Your task to perform on an android device: turn pop-ups off in chrome Image 0: 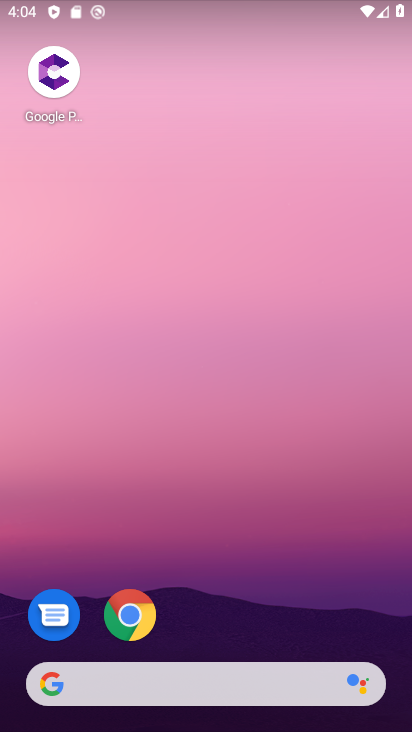
Step 0: click (130, 618)
Your task to perform on an android device: turn pop-ups off in chrome Image 1: 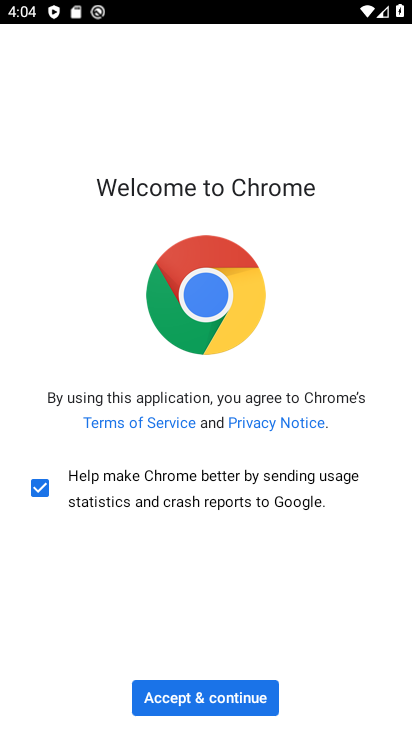
Step 1: click (230, 699)
Your task to perform on an android device: turn pop-ups off in chrome Image 2: 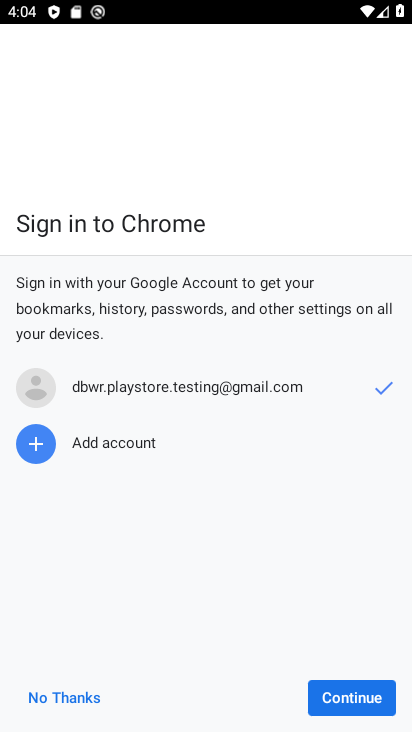
Step 2: click (345, 703)
Your task to perform on an android device: turn pop-ups off in chrome Image 3: 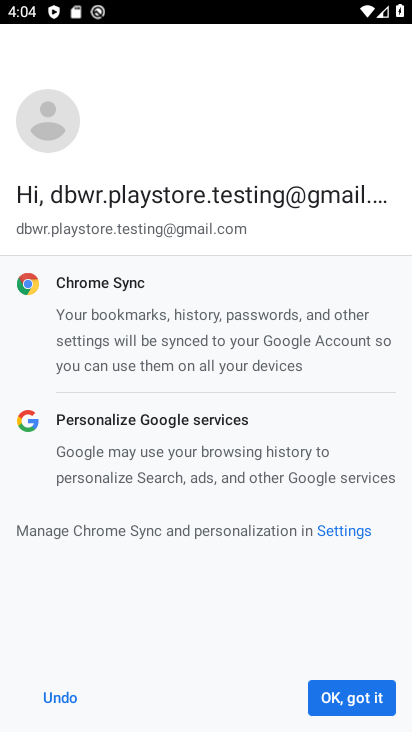
Step 3: click (338, 700)
Your task to perform on an android device: turn pop-ups off in chrome Image 4: 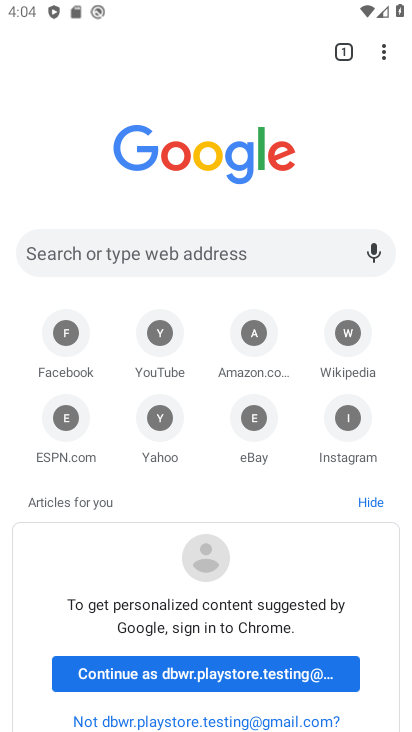
Step 4: click (379, 52)
Your task to perform on an android device: turn pop-ups off in chrome Image 5: 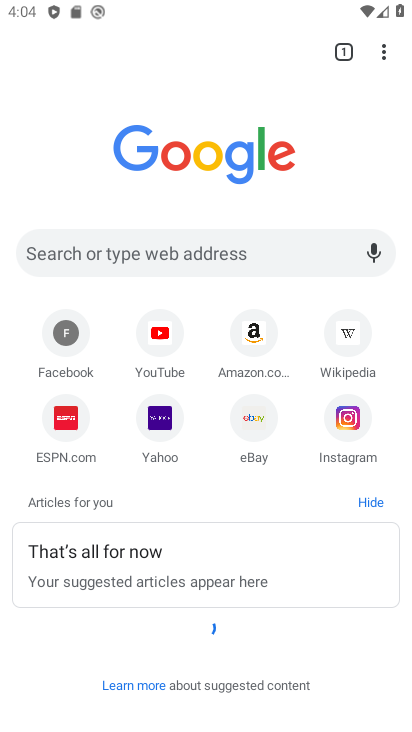
Step 5: click (384, 52)
Your task to perform on an android device: turn pop-ups off in chrome Image 6: 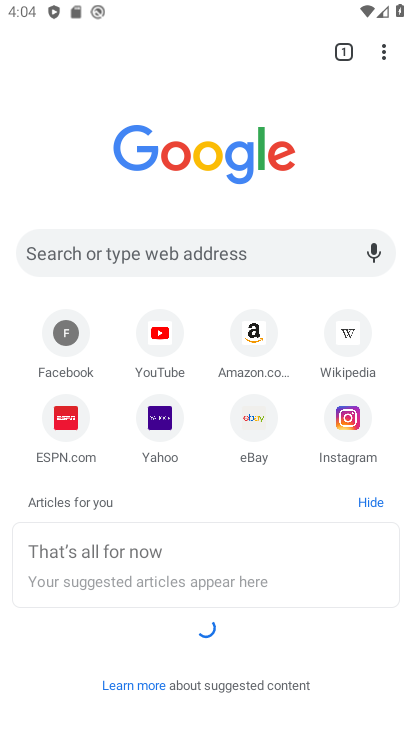
Step 6: click (385, 53)
Your task to perform on an android device: turn pop-ups off in chrome Image 7: 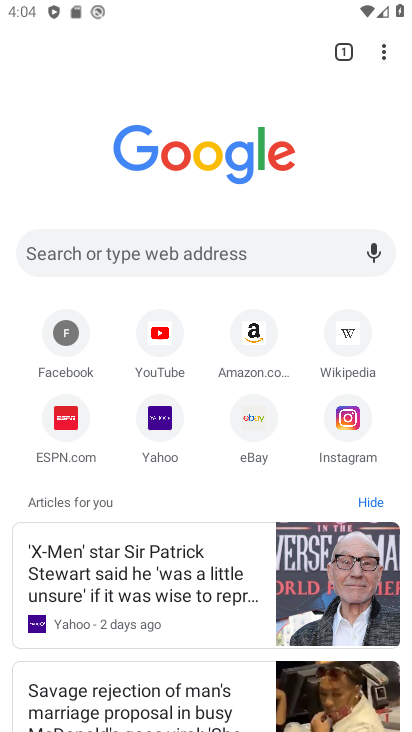
Step 7: click (385, 53)
Your task to perform on an android device: turn pop-ups off in chrome Image 8: 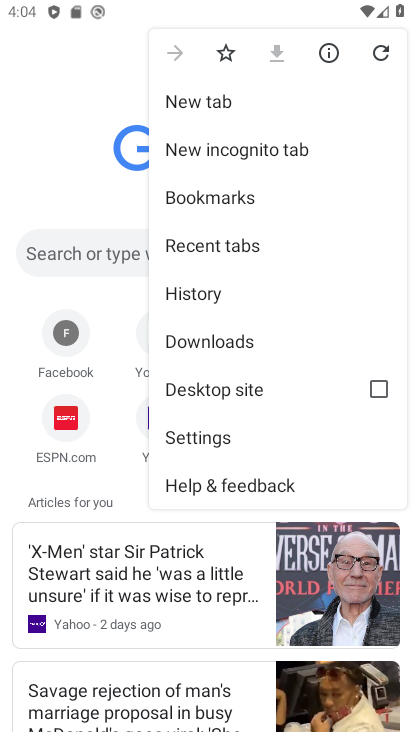
Step 8: drag from (251, 485) to (263, 165)
Your task to perform on an android device: turn pop-ups off in chrome Image 9: 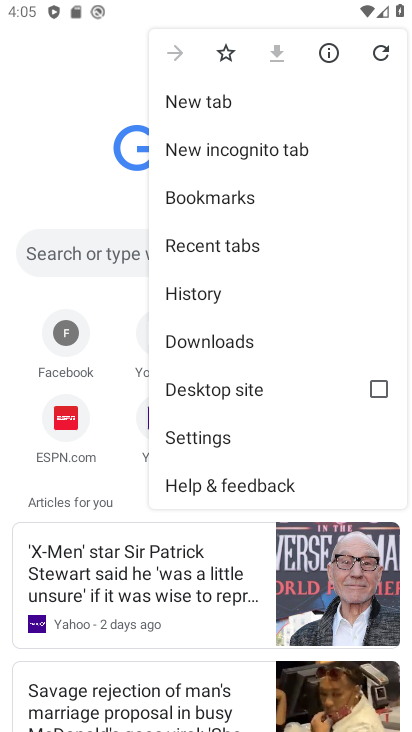
Step 9: click (212, 433)
Your task to perform on an android device: turn pop-ups off in chrome Image 10: 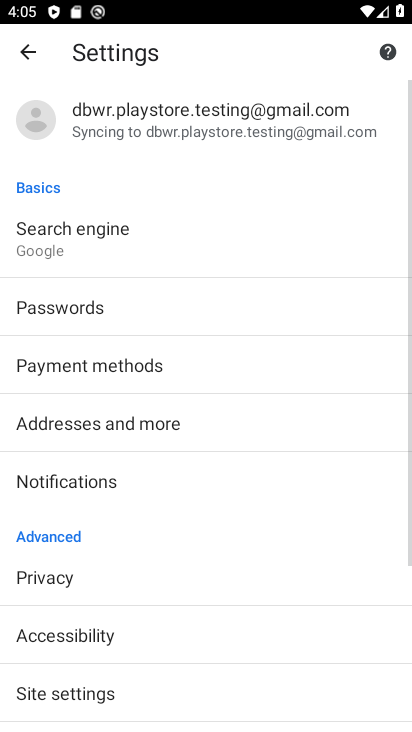
Step 10: drag from (148, 697) to (173, 268)
Your task to perform on an android device: turn pop-ups off in chrome Image 11: 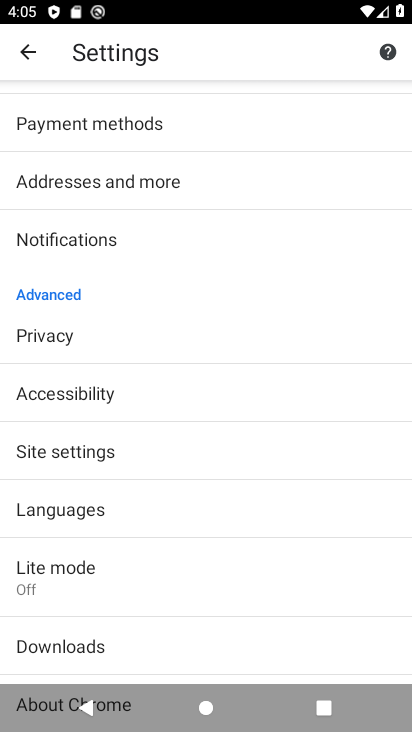
Step 11: drag from (95, 670) to (129, 321)
Your task to perform on an android device: turn pop-ups off in chrome Image 12: 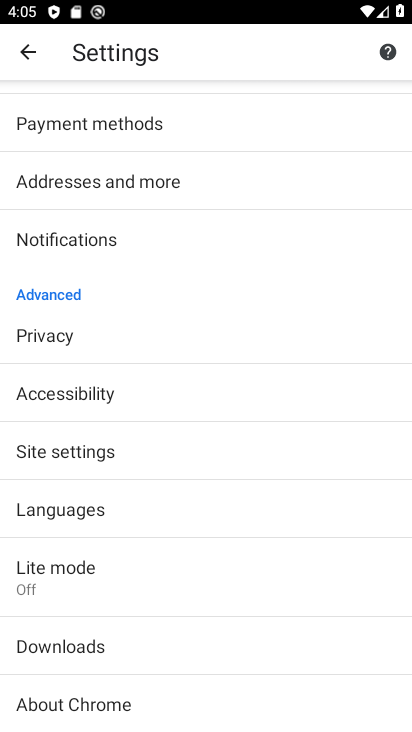
Step 12: click (73, 448)
Your task to perform on an android device: turn pop-ups off in chrome Image 13: 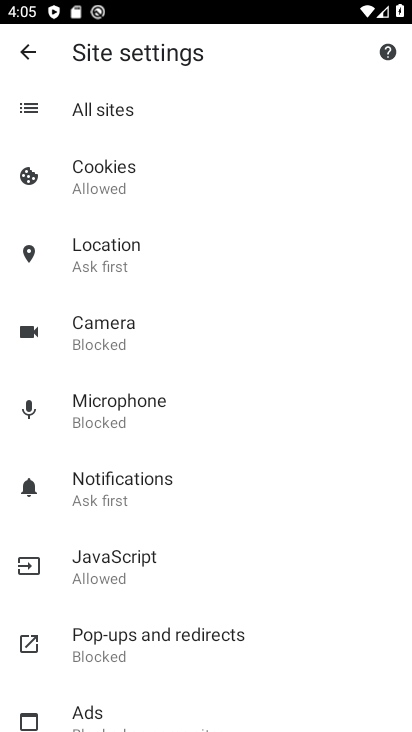
Step 13: drag from (166, 679) to (207, 333)
Your task to perform on an android device: turn pop-ups off in chrome Image 14: 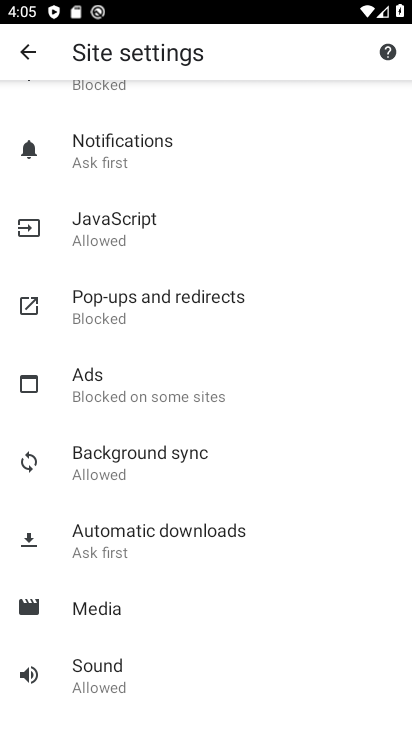
Step 14: click (150, 298)
Your task to perform on an android device: turn pop-ups off in chrome Image 15: 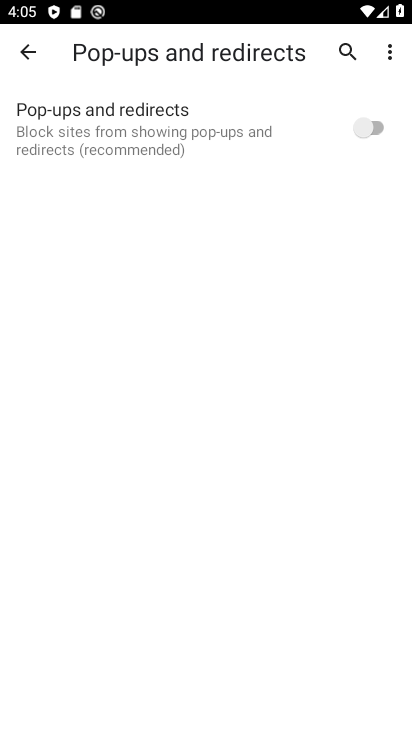
Step 15: task complete